Your task to perform on an android device: turn off airplane mode Image 0: 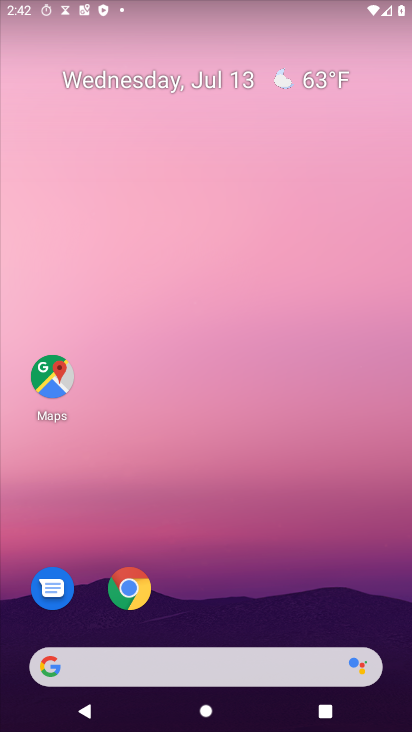
Step 0: drag from (232, 663) to (166, 218)
Your task to perform on an android device: turn off airplane mode Image 1: 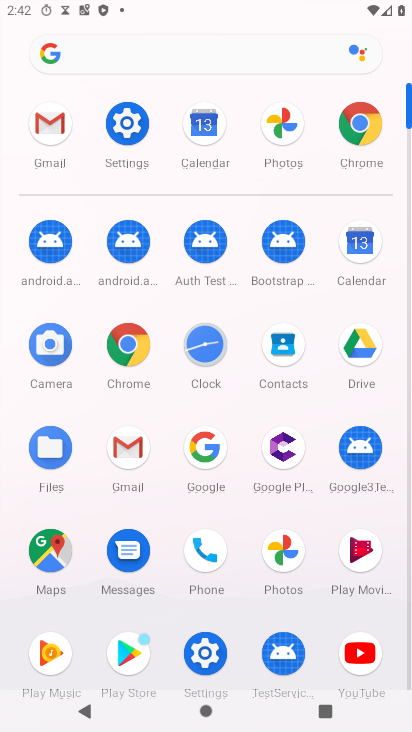
Step 1: click (136, 141)
Your task to perform on an android device: turn off airplane mode Image 2: 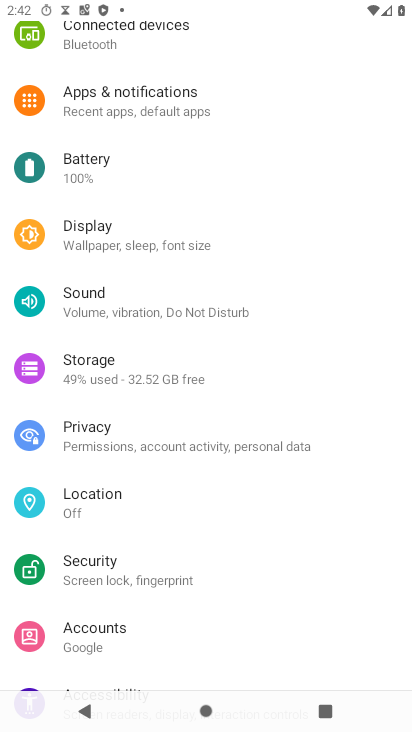
Step 2: drag from (130, 153) to (226, 460)
Your task to perform on an android device: turn off airplane mode Image 3: 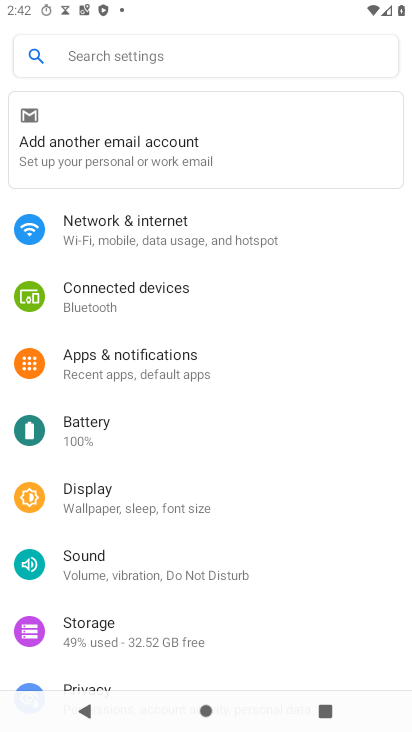
Step 3: click (108, 226)
Your task to perform on an android device: turn off airplane mode Image 4: 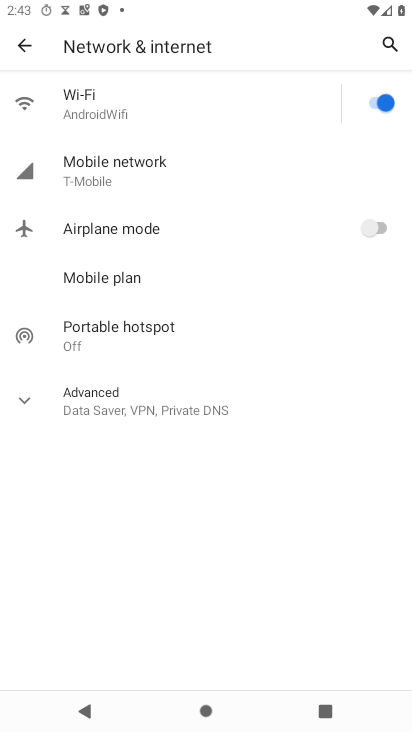
Step 4: task complete